Your task to perform on an android device: turn on the 12-hour format for clock Image 0: 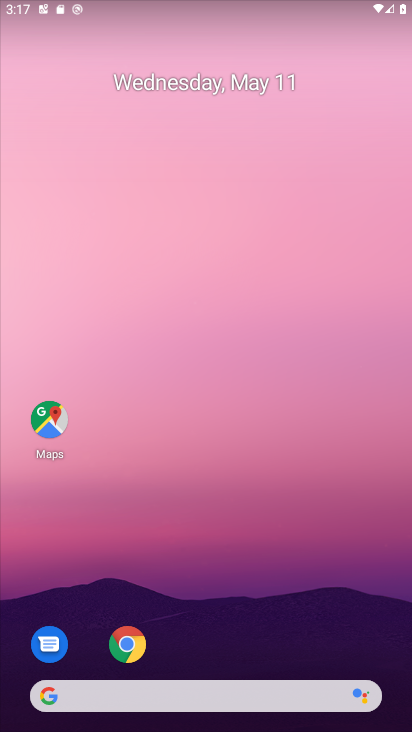
Step 0: drag from (193, 674) to (338, 12)
Your task to perform on an android device: turn on the 12-hour format for clock Image 1: 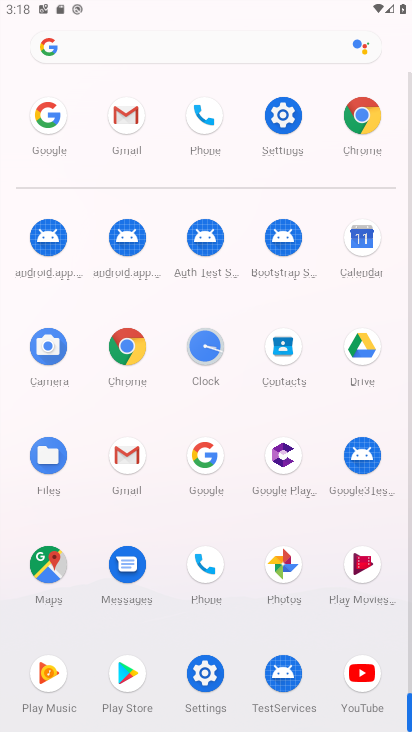
Step 1: click (204, 354)
Your task to perform on an android device: turn on the 12-hour format for clock Image 2: 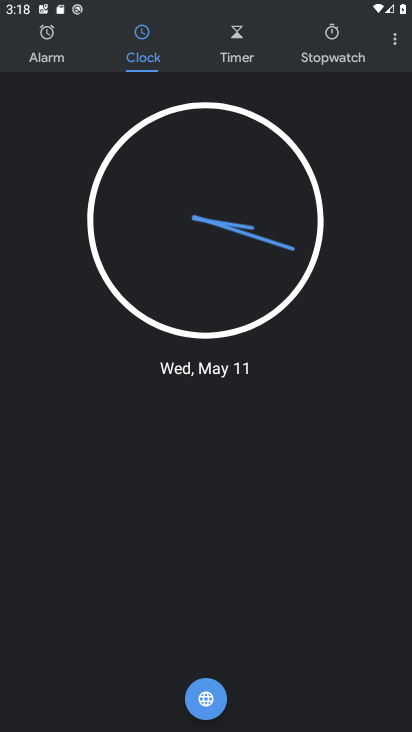
Step 2: click (392, 43)
Your task to perform on an android device: turn on the 12-hour format for clock Image 3: 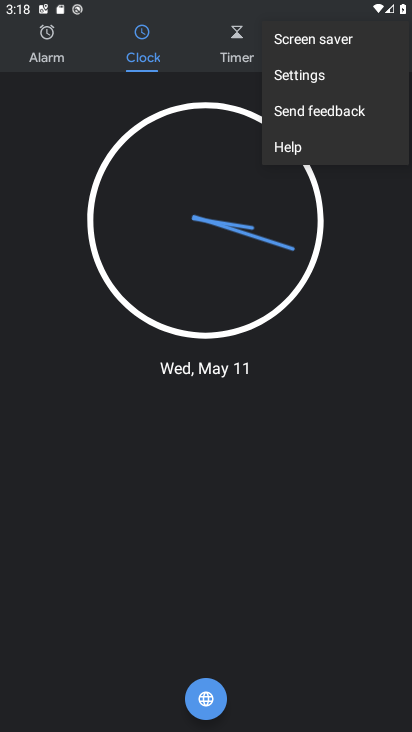
Step 3: click (309, 78)
Your task to perform on an android device: turn on the 12-hour format for clock Image 4: 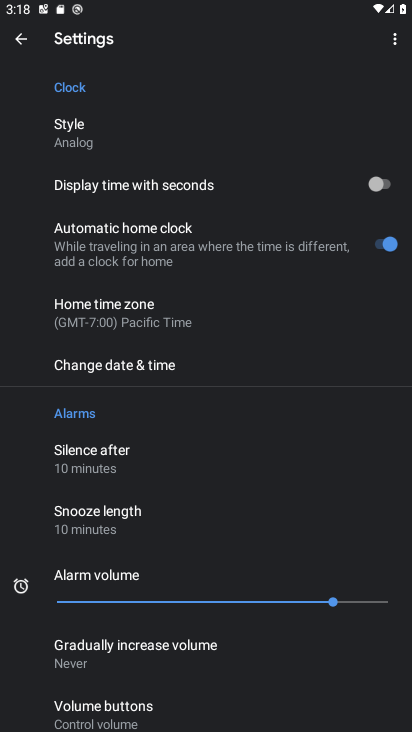
Step 4: click (63, 371)
Your task to perform on an android device: turn on the 12-hour format for clock Image 5: 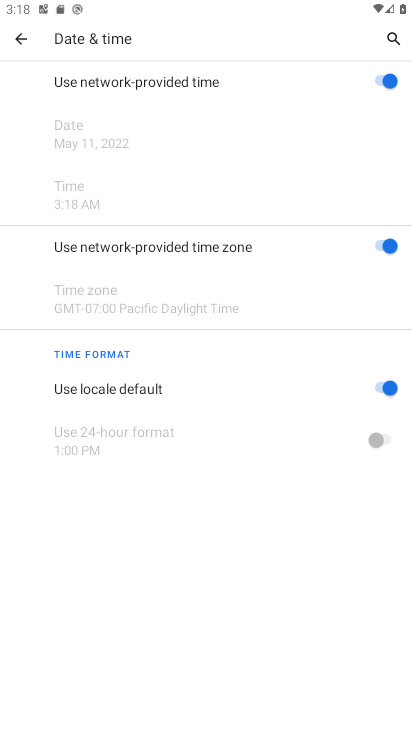
Step 5: task complete